Your task to perform on an android device: turn on notifications settings in the gmail app Image 0: 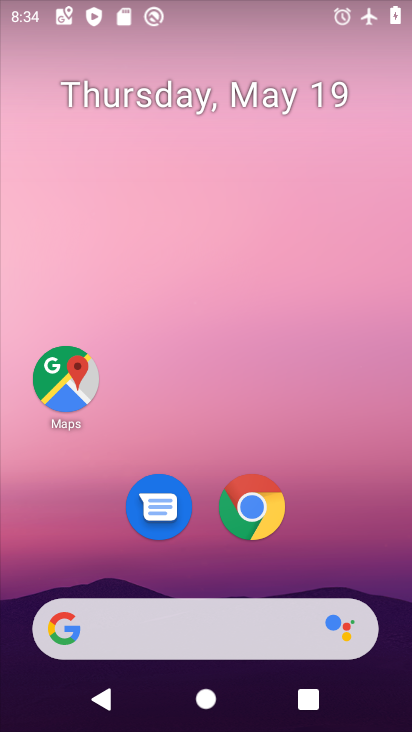
Step 0: drag from (233, 722) to (257, 101)
Your task to perform on an android device: turn on notifications settings in the gmail app Image 1: 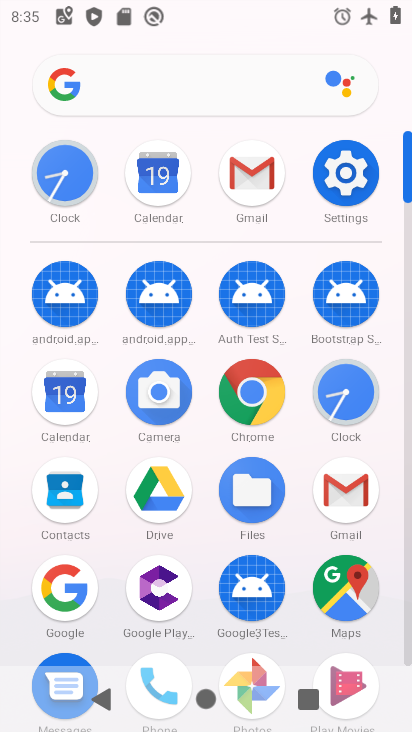
Step 1: click (244, 174)
Your task to perform on an android device: turn on notifications settings in the gmail app Image 2: 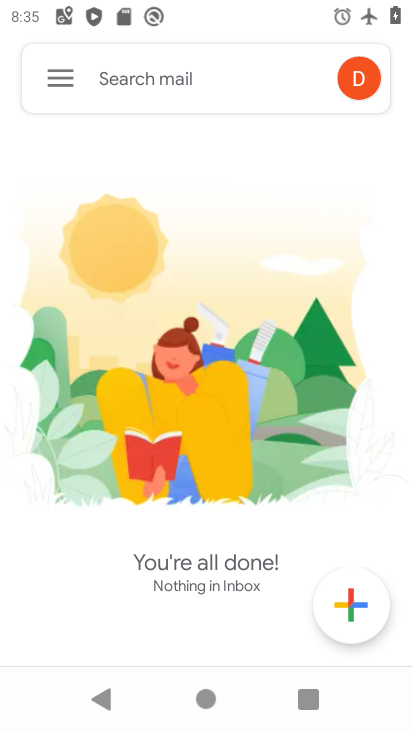
Step 2: click (67, 80)
Your task to perform on an android device: turn on notifications settings in the gmail app Image 3: 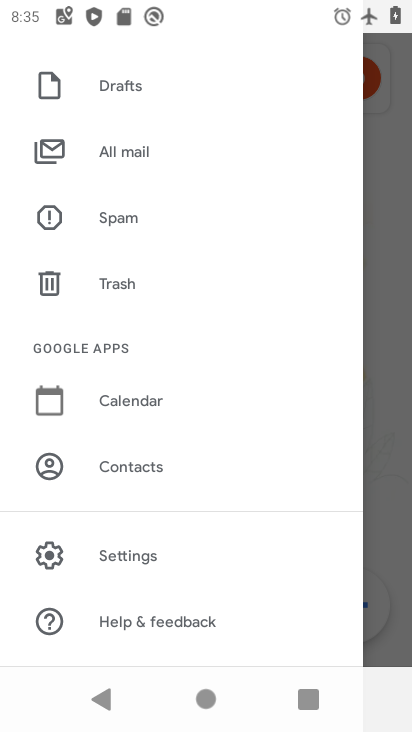
Step 3: click (130, 552)
Your task to perform on an android device: turn on notifications settings in the gmail app Image 4: 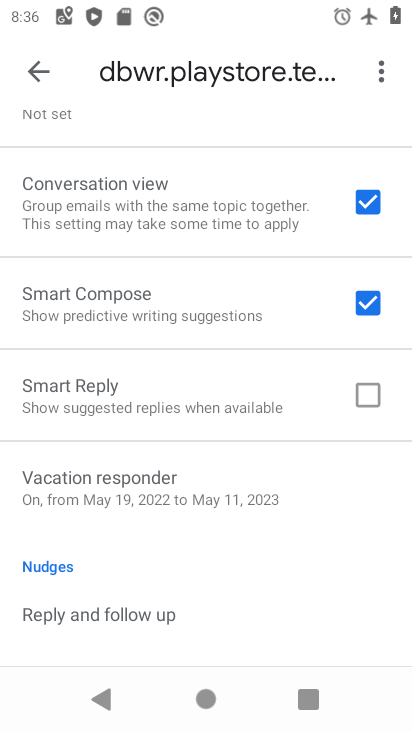
Step 4: drag from (160, 195) to (159, 507)
Your task to perform on an android device: turn on notifications settings in the gmail app Image 5: 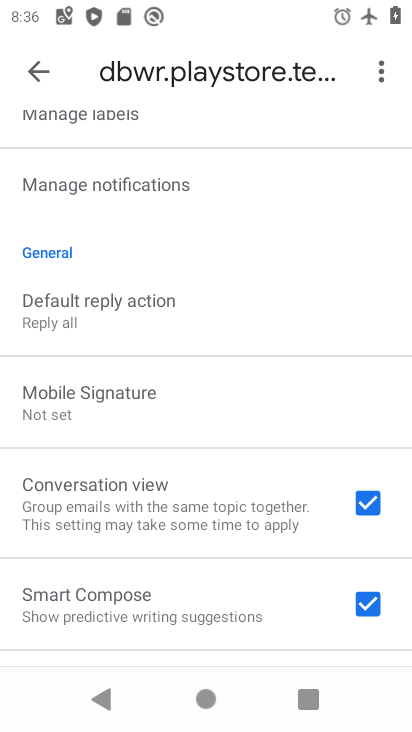
Step 5: drag from (154, 218) to (169, 525)
Your task to perform on an android device: turn on notifications settings in the gmail app Image 6: 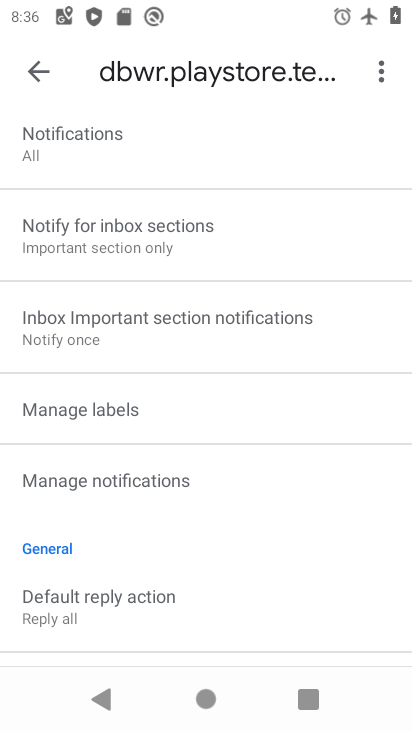
Step 6: drag from (202, 181) to (199, 450)
Your task to perform on an android device: turn on notifications settings in the gmail app Image 7: 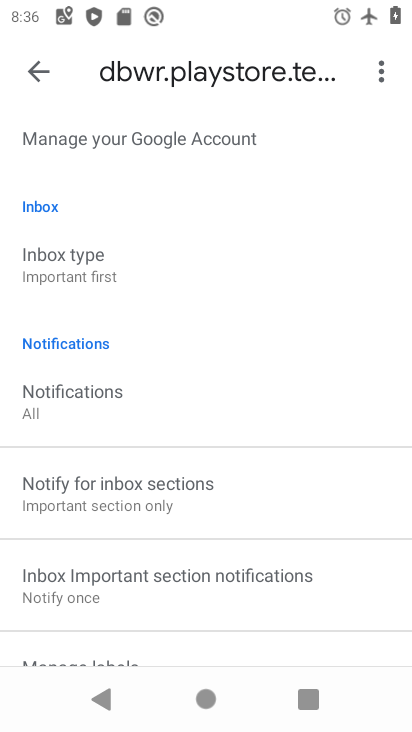
Step 7: click (92, 393)
Your task to perform on an android device: turn on notifications settings in the gmail app Image 8: 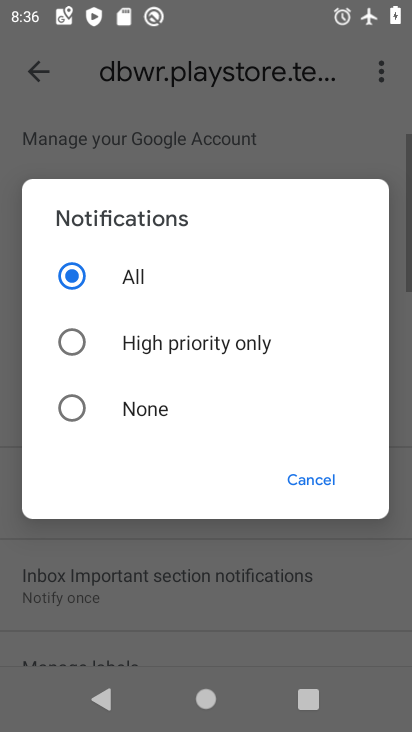
Step 8: click (71, 410)
Your task to perform on an android device: turn on notifications settings in the gmail app Image 9: 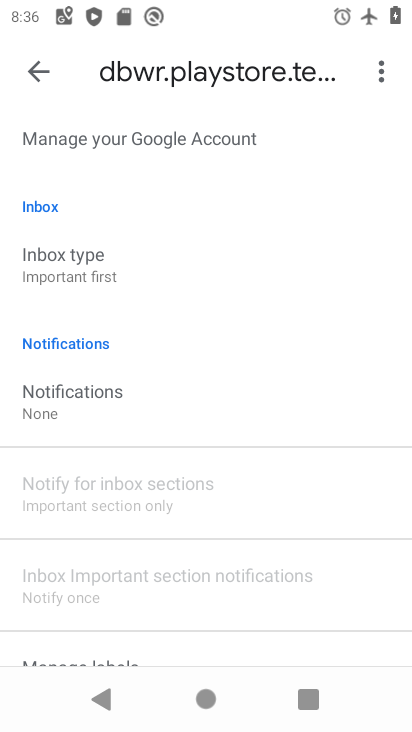
Step 9: task complete